Your task to perform on an android device: add a contact Image 0: 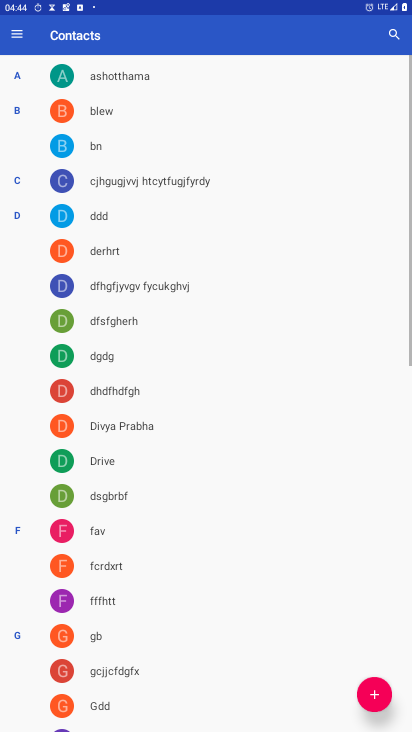
Step 0: press home button
Your task to perform on an android device: add a contact Image 1: 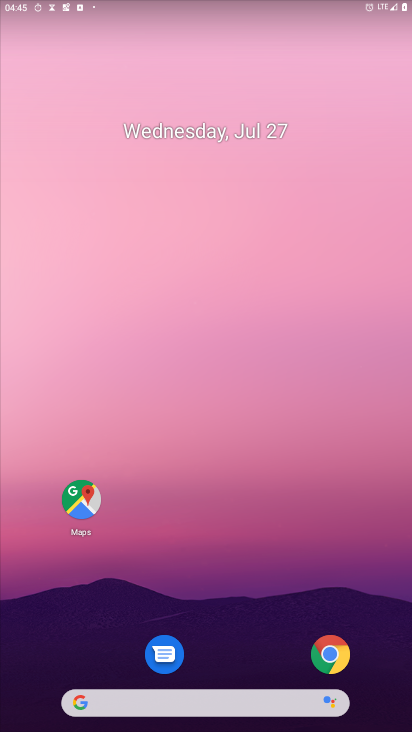
Step 1: drag from (230, 700) to (235, 232)
Your task to perform on an android device: add a contact Image 2: 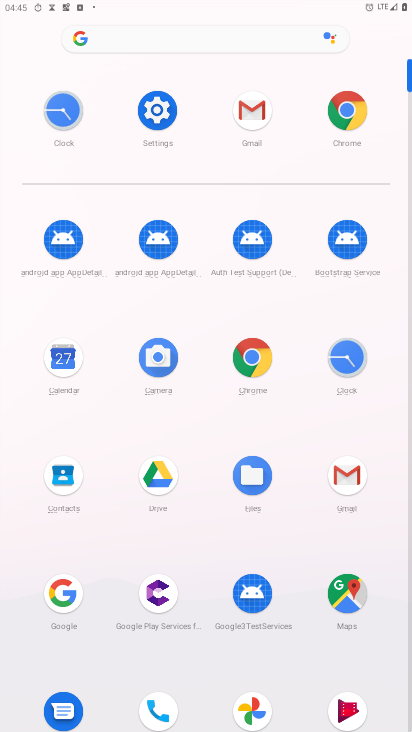
Step 2: click (49, 483)
Your task to perform on an android device: add a contact Image 3: 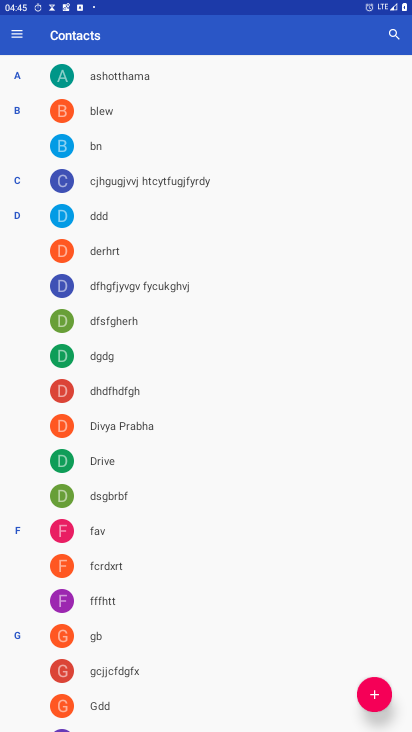
Step 3: click (374, 695)
Your task to perform on an android device: add a contact Image 4: 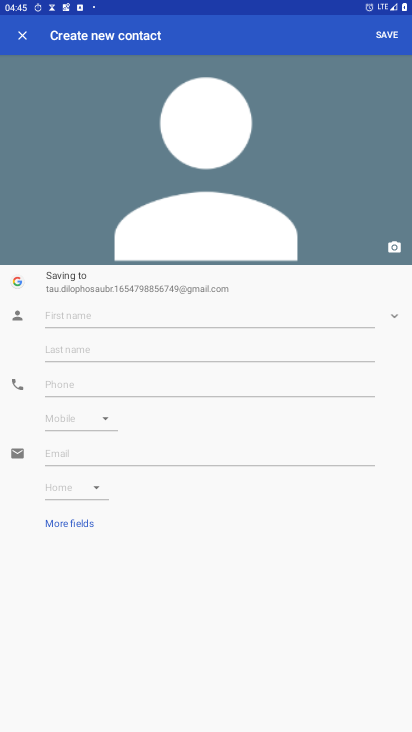
Step 4: click (94, 314)
Your task to perform on an android device: add a contact Image 5: 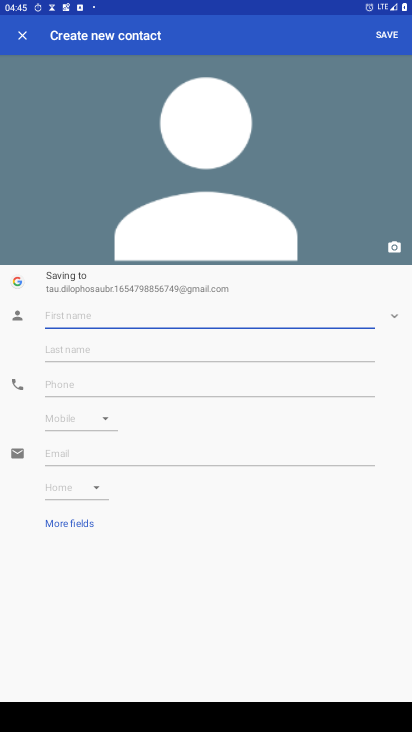
Step 5: type "jaturi"
Your task to perform on an android device: add a contact Image 6: 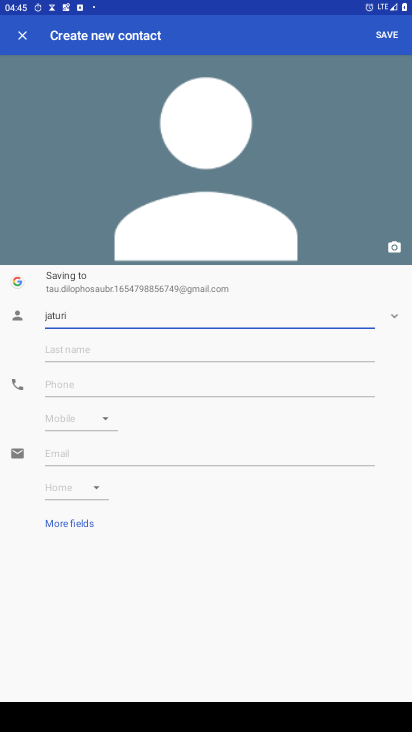
Step 6: click (110, 381)
Your task to perform on an android device: add a contact Image 7: 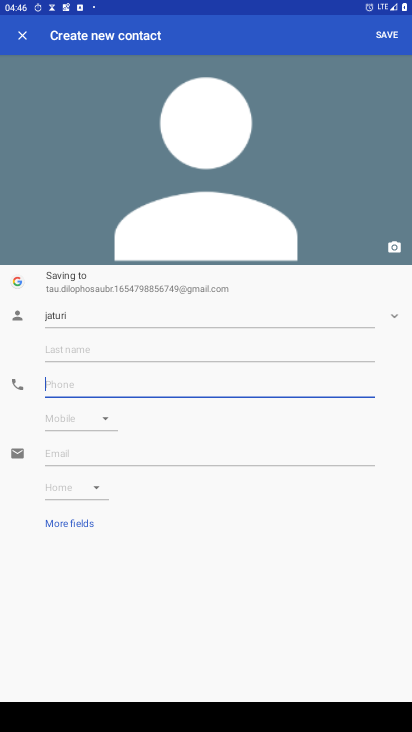
Step 7: type "768656778"
Your task to perform on an android device: add a contact Image 8: 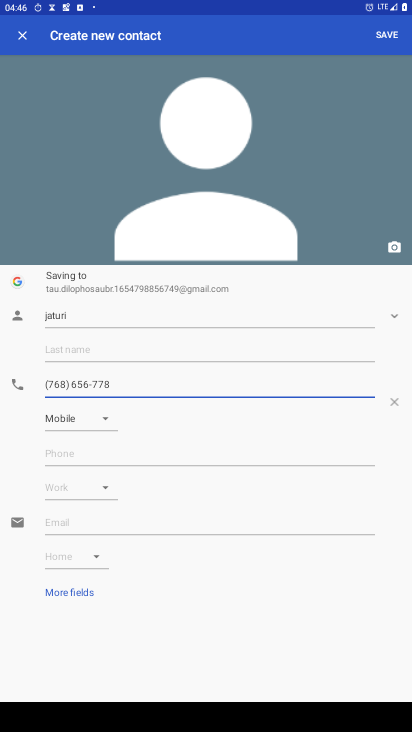
Step 8: click (384, 32)
Your task to perform on an android device: add a contact Image 9: 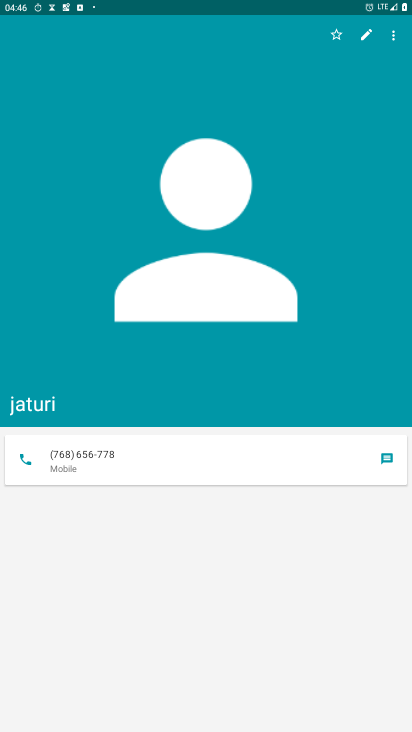
Step 9: task complete